Your task to perform on an android device: change notification settings in the gmail app Image 0: 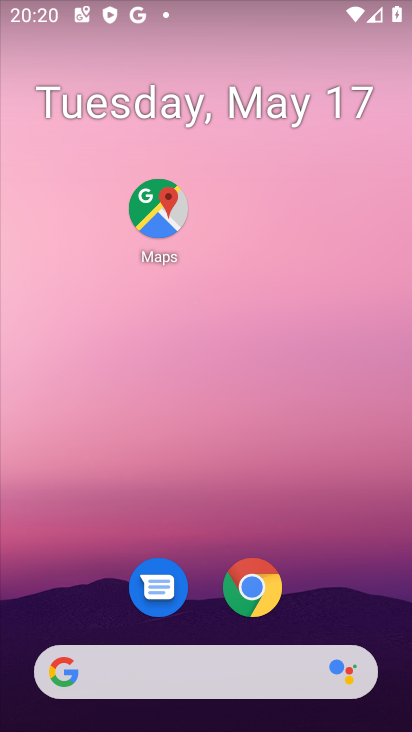
Step 0: drag from (37, 498) to (213, 184)
Your task to perform on an android device: change notification settings in the gmail app Image 1: 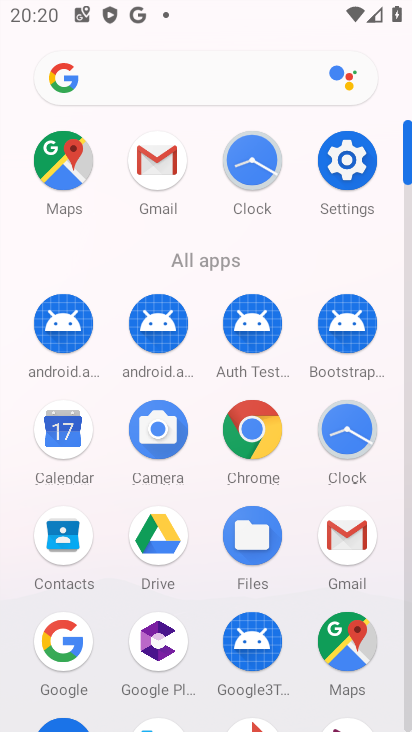
Step 1: task complete